Your task to perform on an android device: Go to privacy settings Image 0: 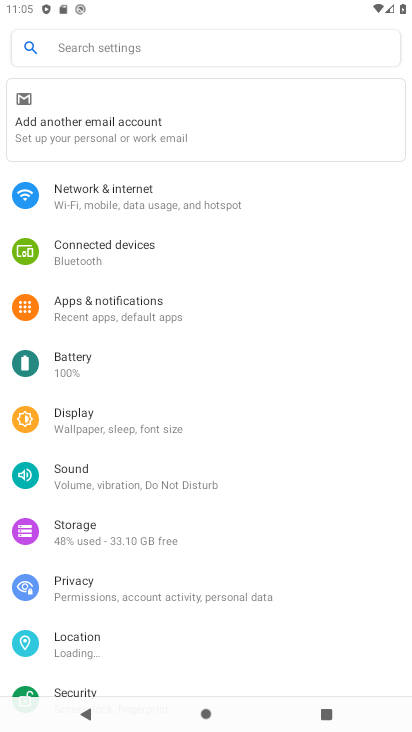
Step 0: click (88, 589)
Your task to perform on an android device: Go to privacy settings Image 1: 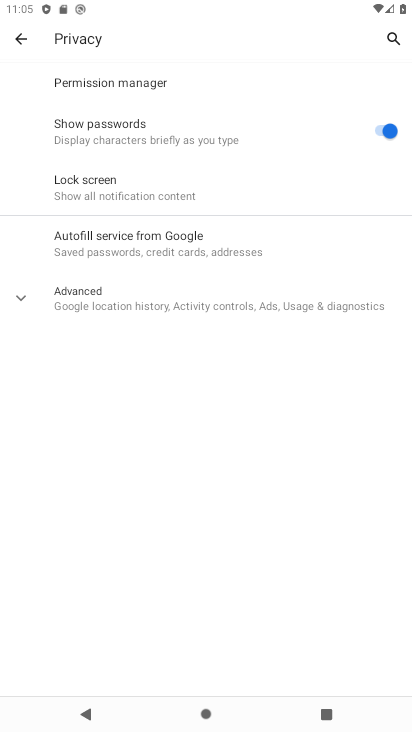
Step 1: task complete